Your task to perform on an android device: Set the phone to "Do not disturb". Image 0: 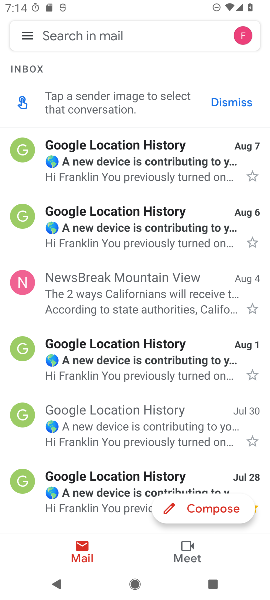
Step 0: press home button
Your task to perform on an android device: Set the phone to "Do not disturb". Image 1: 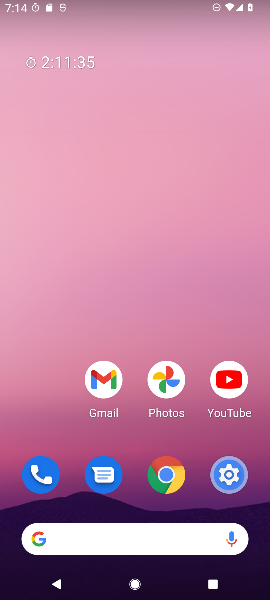
Step 1: drag from (60, 437) to (96, 152)
Your task to perform on an android device: Set the phone to "Do not disturb". Image 2: 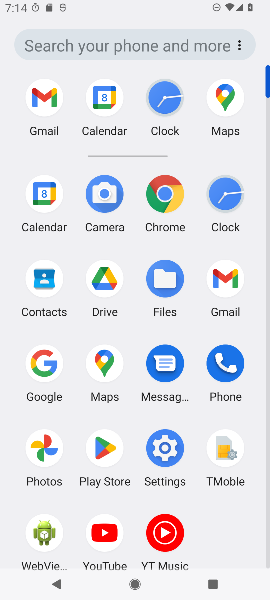
Step 2: click (167, 448)
Your task to perform on an android device: Set the phone to "Do not disturb". Image 3: 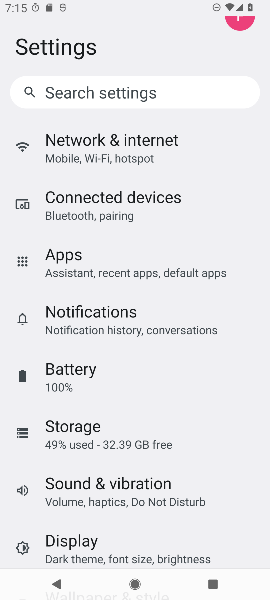
Step 3: drag from (233, 383) to (235, 317)
Your task to perform on an android device: Set the phone to "Do not disturb". Image 4: 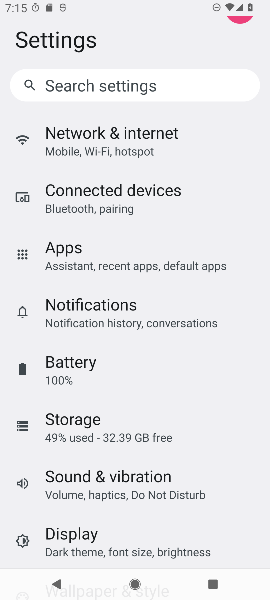
Step 4: drag from (232, 431) to (234, 325)
Your task to perform on an android device: Set the phone to "Do not disturb". Image 5: 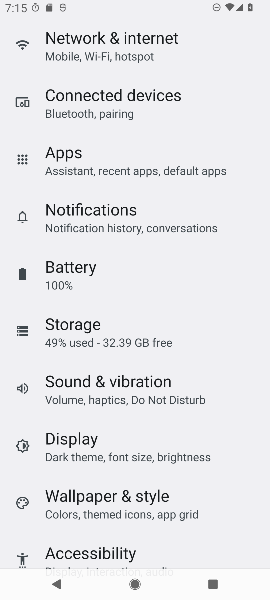
Step 5: drag from (231, 443) to (238, 339)
Your task to perform on an android device: Set the phone to "Do not disturb". Image 6: 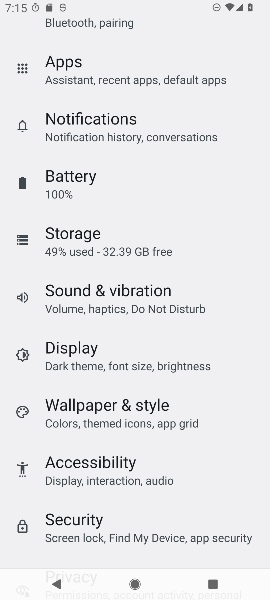
Step 6: drag from (226, 426) to (227, 337)
Your task to perform on an android device: Set the phone to "Do not disturb". Image 7: 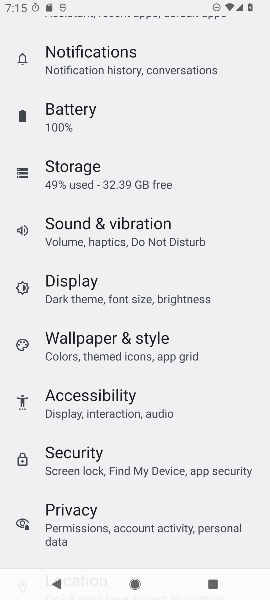
Step 7: drag from (226, 411) to (231, 300)
Your task to perform on an android device: Set the phone to "Do not disturb". Image 8: 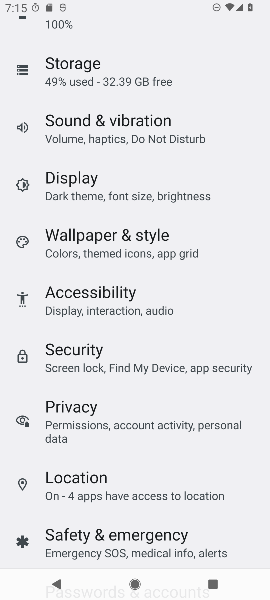
Step 8: drag from (231, 468) to (233, 327)
Your task to perform on an android device: Set the phone to "Do not disturb". Image 9: 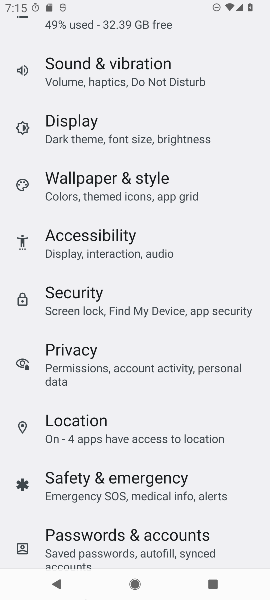
Step 9: drag from (232, 467) to (243, 349)
Your task to perform on an android device: Set the phone to "Do not disturb". Image 10: 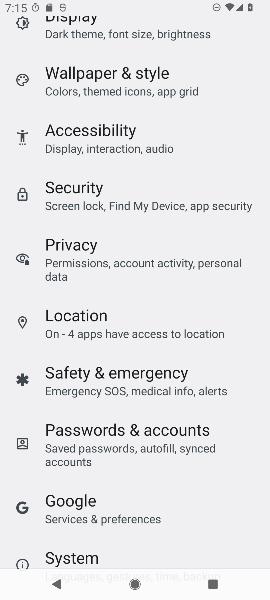
Step 10: drag from (241, 458) to (244, 372)
Your task to perform on an android device: Set the phone to "Do not disturb". Image 11: 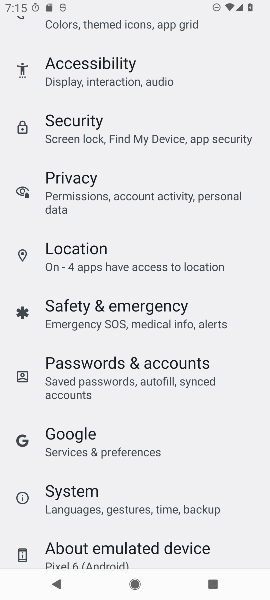
Step 11: drag from (245, 215) to (248, 310)
Your task to perform on an android device: Set the phone to "Do not disturb". Image 12: 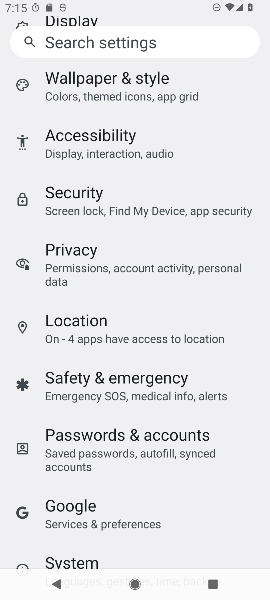
Step 12: drag from (251, 150) to (244, 280)
Your task to perform on an android device: Set the phone to "Do not disturb". Image 13: 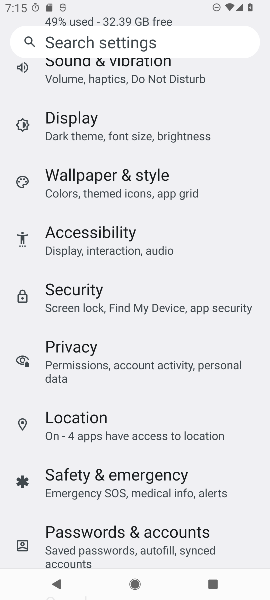
Step 13: drag from (242, 200) to (236, 311)
Your task to perform on an android device: Set the phone to "Do not disturb". Image 14: 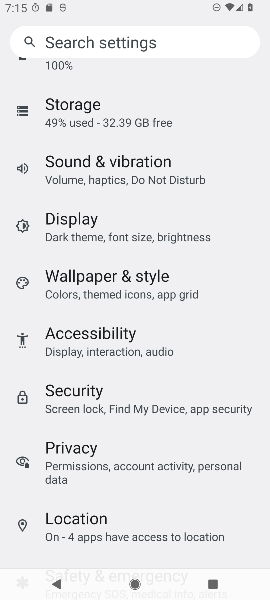
Step 14: drag from (230, 155) to (232, 317)
Your task to perform on an android device: Set the phone to "Do not disturb". Image 15: 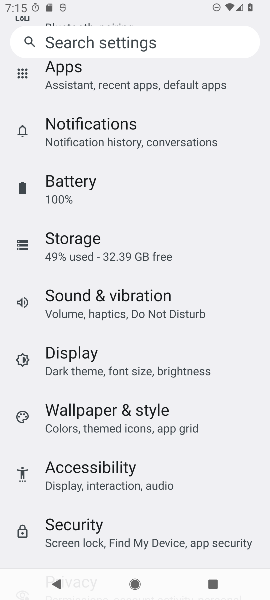
Step 15: drag from (229, 160) to (230, 290)
Your task to perform on an android device: Set the phone to "Do not disturb". Image 16: 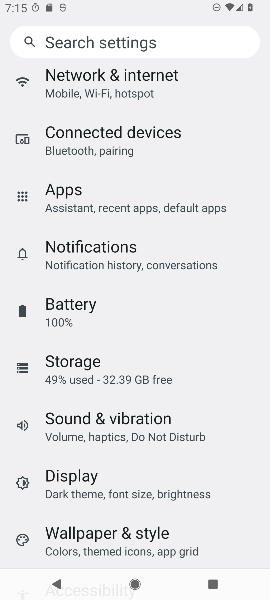
Step 16: click (188, 419)
Your task to perform on an android device: Set the phone to "Do not disturb". Image 17: 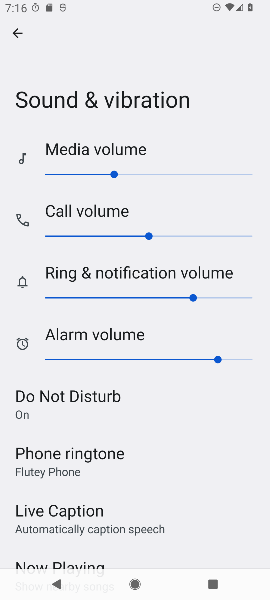
Step 17: task complete